Your task to perform on an android device: When is my next appointment? Image 0: 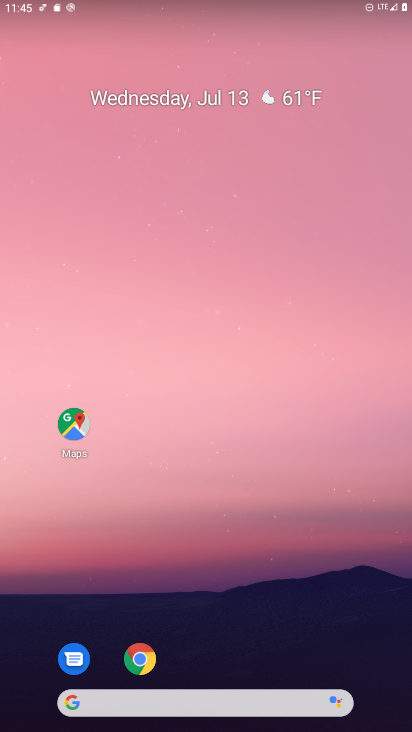
Step 0: drag from (359, 659) to (298, 209)
Your task to perform on an android device: When is my next appointment? Image 1: 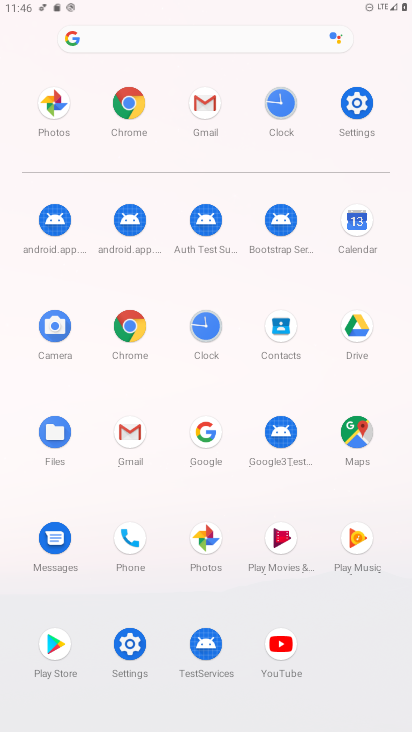
Step 1: click (355, 220)
Your task to perform on an android device: When is my next appointment? Image 2: 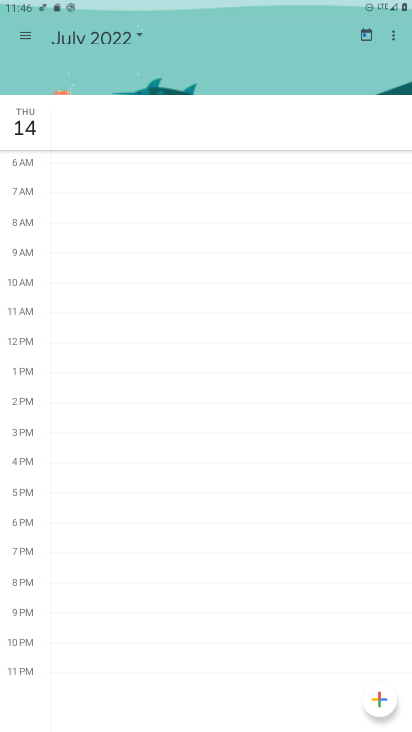
Step 2: click (20, 32)
Your task to perform on an android device: When is my next appointment? Image 3: 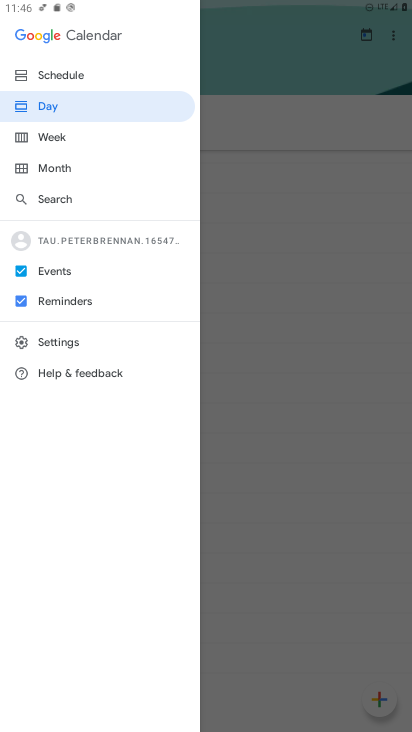
Step 3: click (58, 72)
Your task to perform on an android device: When is my next appointment? Image 4: 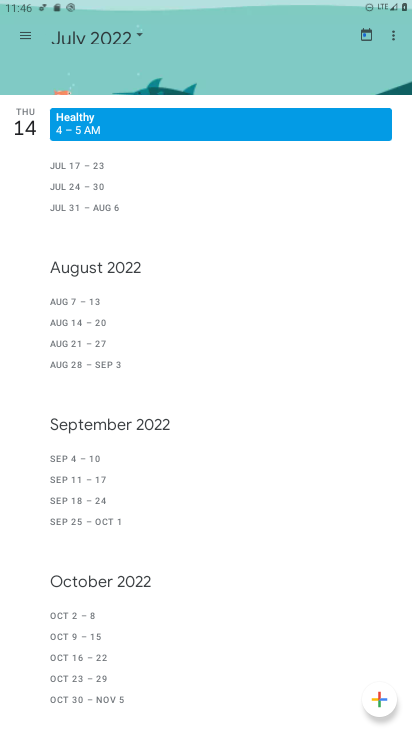
Step 4: task complete